Your task to perform on an android device: allow notifications from all sites in the chrome app Image 0: 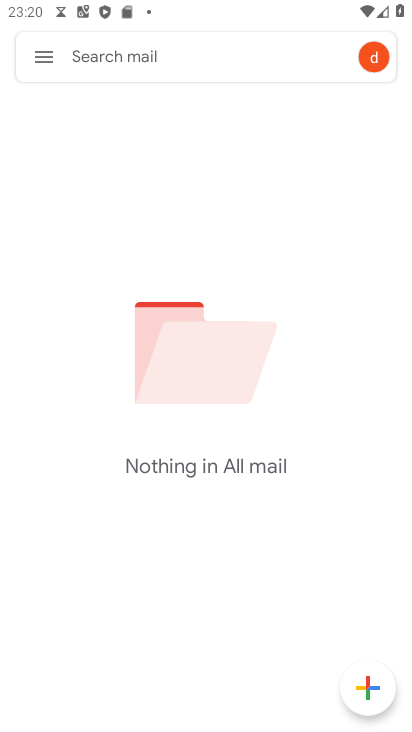
Step 0: press back button
Your task to perform on an android device: allow notifications from all sites in the chrome app Image 1: 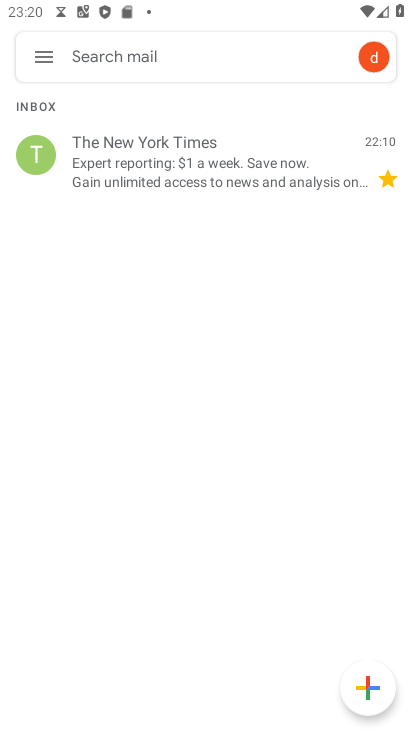
Step 1: press back button
Your task to perform on an android device: allow notifications from all sites in the chrome app Image 2: 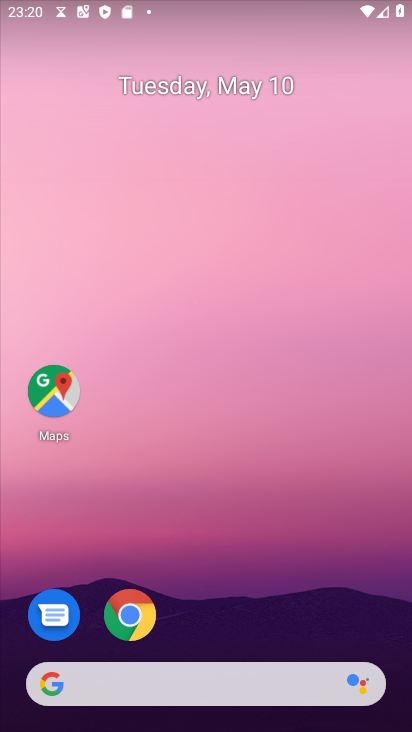
Step 2: click (129, 612)
Your task to perform on an android device: allow notifications from all sites in the chrome app Image 3: 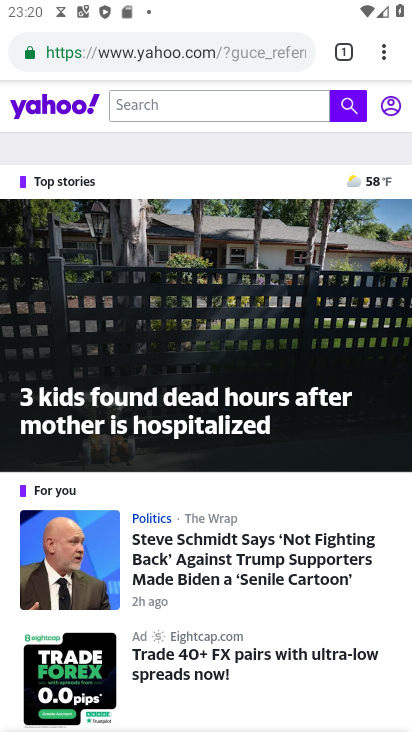
Step 3: click (382, 51)
Your task to perform on an android device: allow notifications from all sites in the chrome app Image 4: 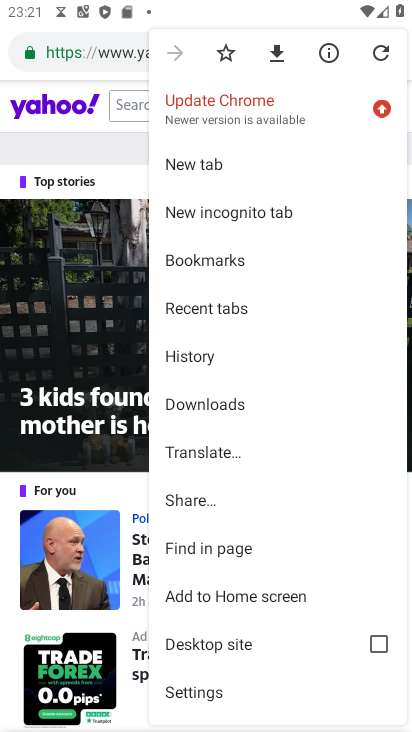
Step 4: click (194, 690)
Your task to perform on an android device: allow notifications from all sites in the chrome app Image 5: 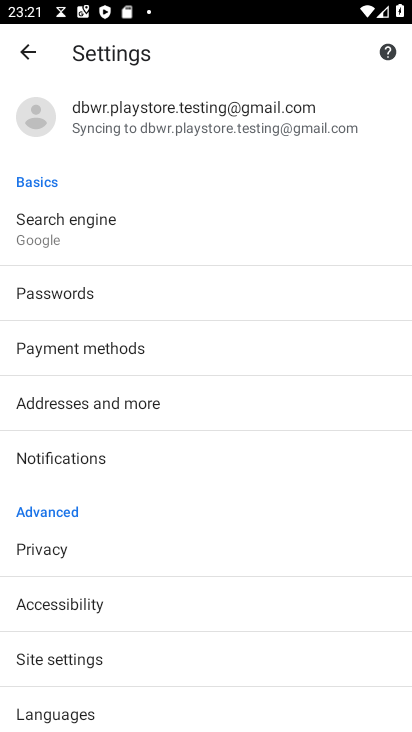
Step 5: click (79, 660)
Your task to perform on an android device: allow notifications from all sites in the chrome app Image 6: 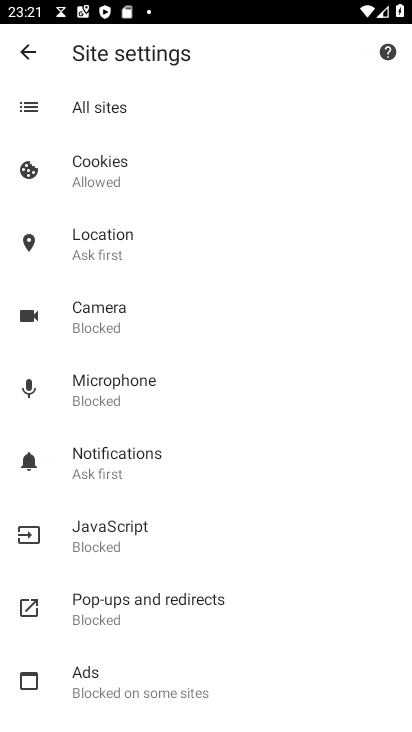
Step 6: click (125, 463)
Your task to perform on an android device: allow notifications from all sites in the chrome app Image 7: 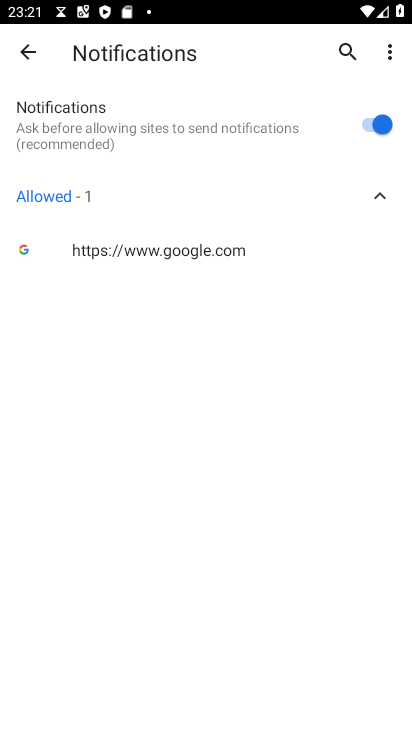
Step 7: task complete